Your task to perform on an android device: Open accessibility settings Image 0: 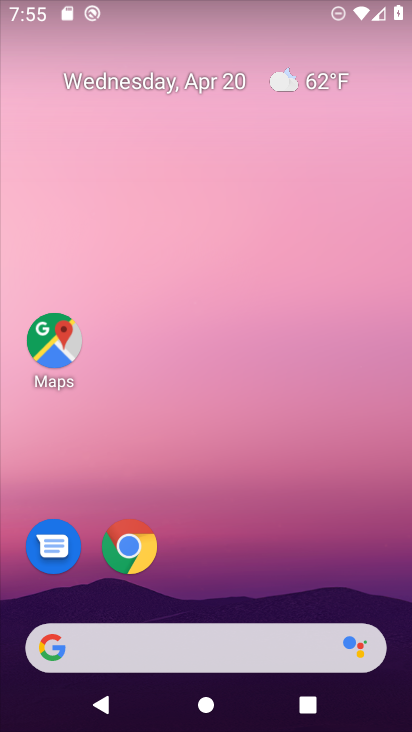
Step 0: drag from (302, 543) to (331, 111)
Your task to perform on an android device: Open accessibility settings Image 1: 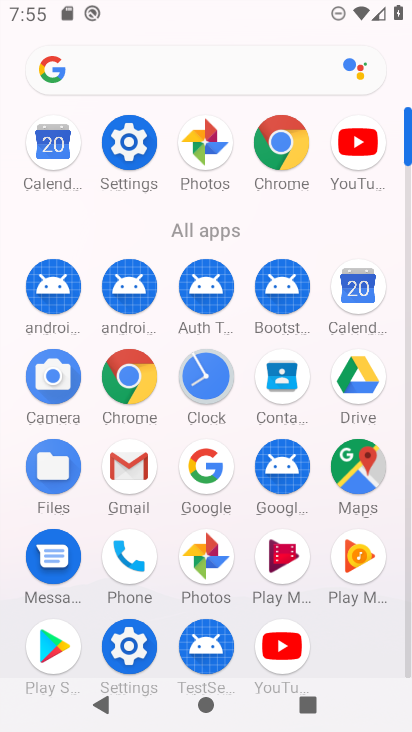
Step 1: click (138, 135)
Your task to perform on an android device: Open accessibility settings Image 2: 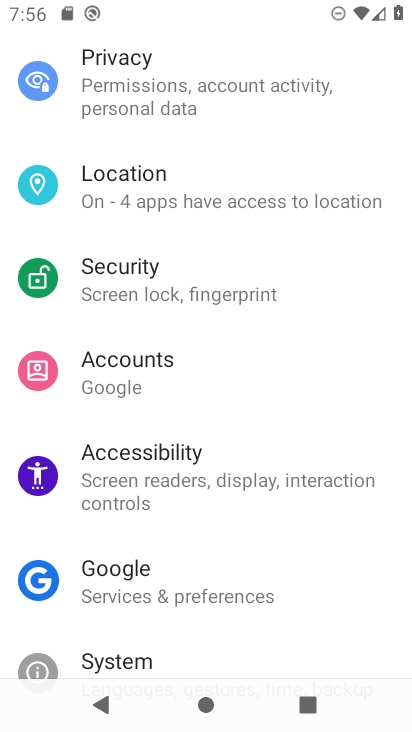
Step 2: click (237, 470)
Your task to perform on an android device: Open accessibility settings Image 3: 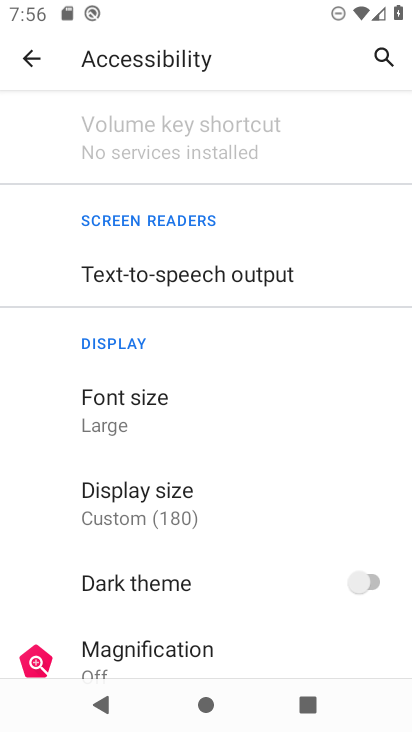
Step 3: task complete